Your task to perform on an android device: Open calendar and show me the third week of next month Image 0: 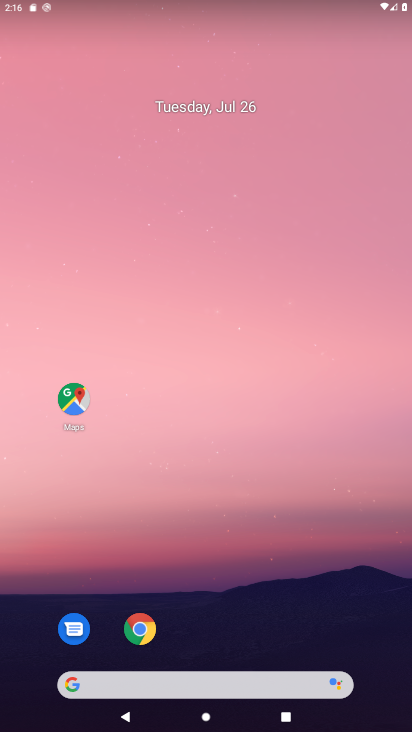
Step 0: drag from (189, 669) to (108, 79)
Your task to perform on an android device: Open calendar and show me the third week of next month Image 1: 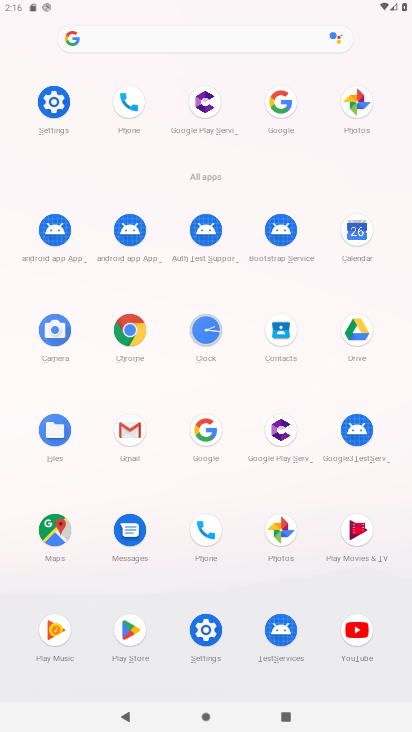
Step 1: click (345, 234)
Your task to perform on an android device: Open calendar and show me the third week of next month Image 2: 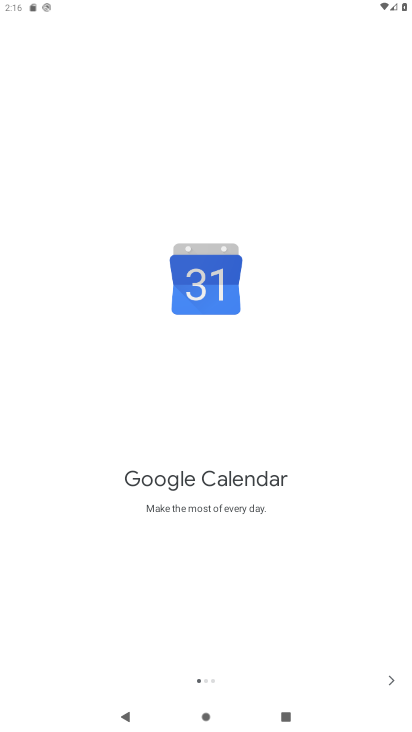
Step 2: click (390, 674)
Your task to perform on an android device: Open calendar and show me the third week of next month Image 3: 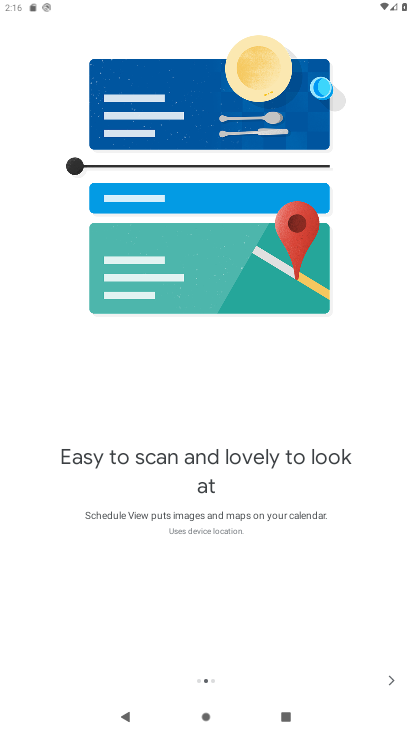
Step 3: click (382, 678)
Your task to perform on an android device: Open calendar and show me the third week of next month Image 4: 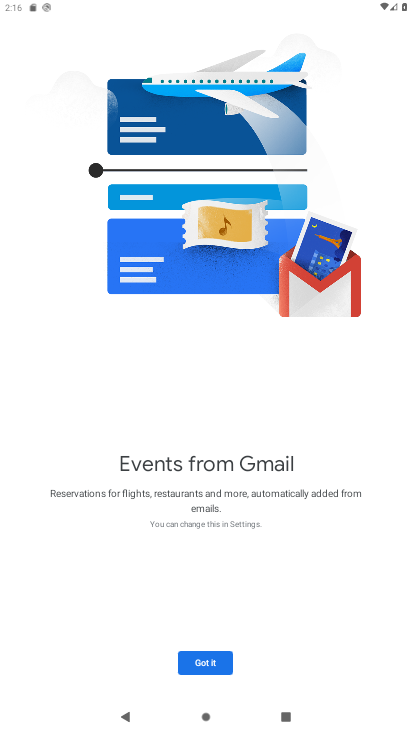
Step 4: click (216, 653)
Your task to perform on an android device: Open calendar and show me the third week of next month Image 5: 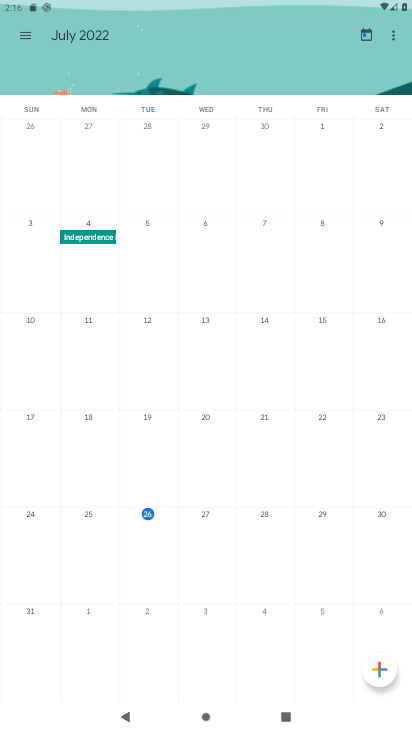
Step 5: click (22, 33)
Your task to perform on an android device: Open calendar and show me the third week of next month Image 6: 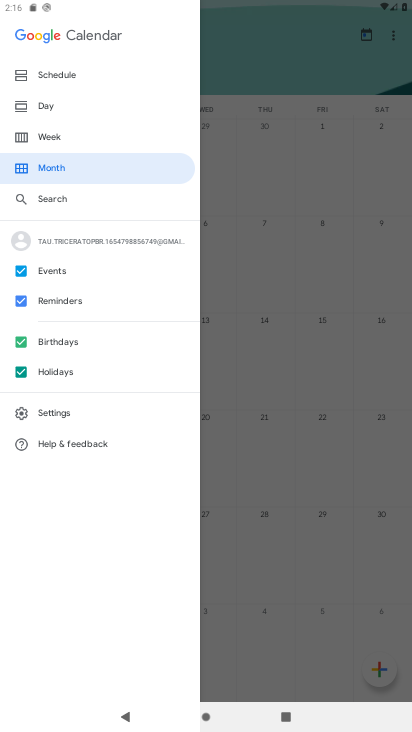
Step 6: click (50, 135)
Your task to perform on an android device: Open calendar and show me the third week of next month Image 7: 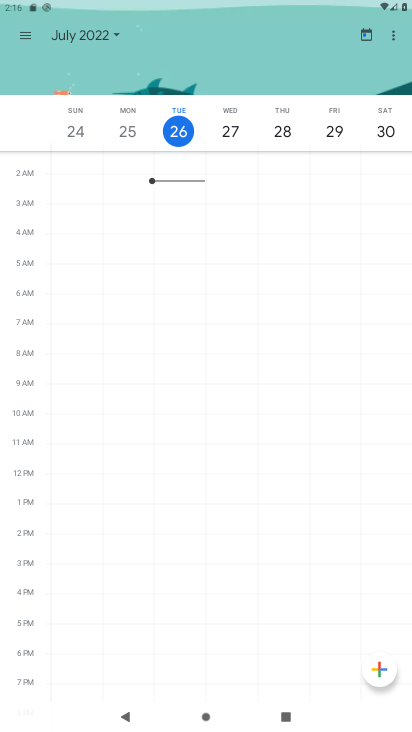
Step 7: task complete